Your task to perform on an android device: toggle priority inbox in the gmail app Image 0: 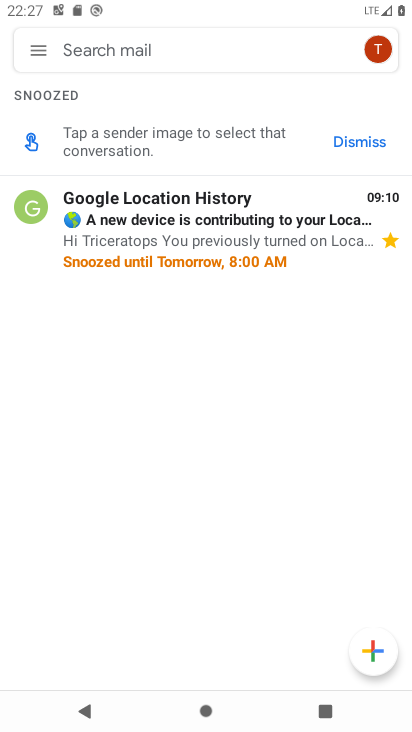
Step 0: press home button
Your task to perform on an android device: toggle priority inbox in the gmail app Image 1: 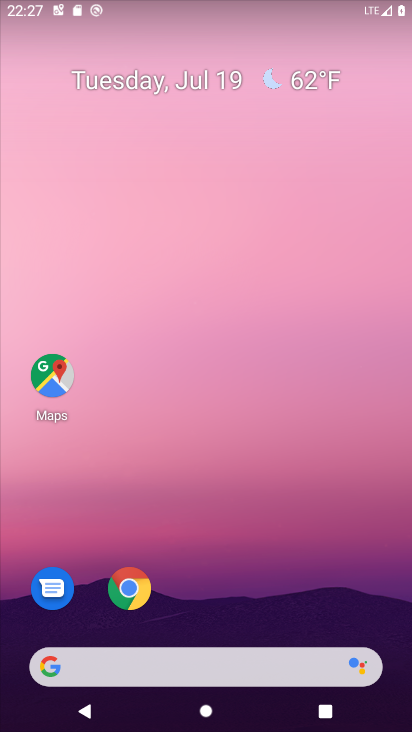
Step 1: drag from (188, 594) to (210, 255)
Your task to perform on an android device: toggle priority inbox in the gmail app Image 2: 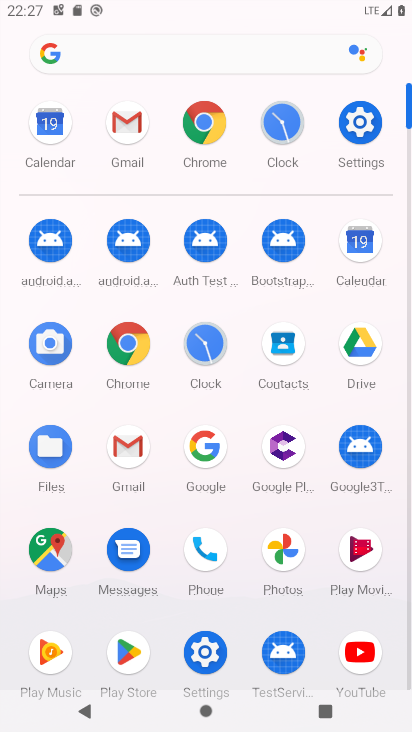
Step 2: click (124, 132)
Your task to perform on an android device: toggle priority inbox in the gmail app Image 3: 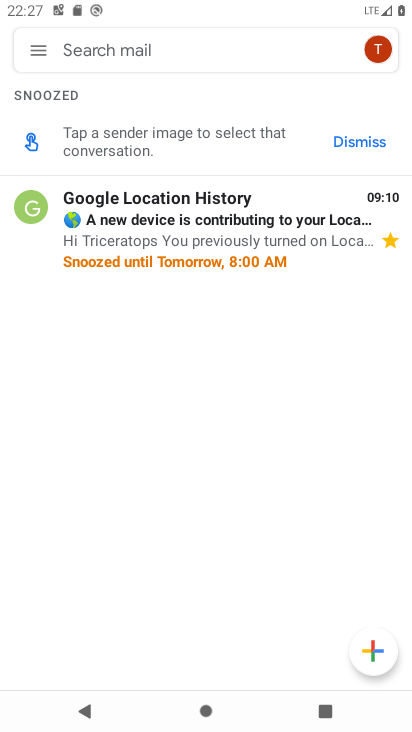
Step 3: click (28, 45)
Your task to perform on an android device: toggle priority inbox in the gmail app Image 4: 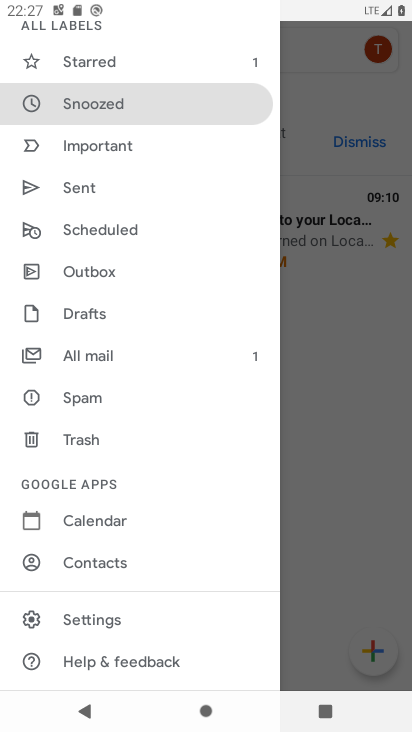
Step 4: click (89, 625)
Your task to perform on an android device: toggle priority inbox in the gmail app Image 5: 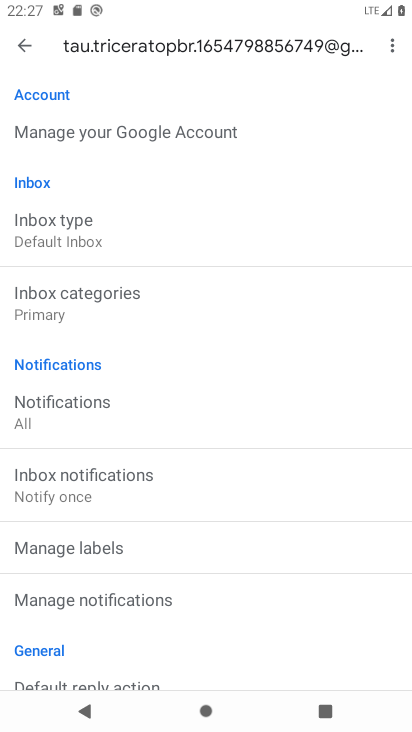
Step 5: click (49, 214)
Your task to perform on an android device: toggle priority inbox in the gmail app Image 6: 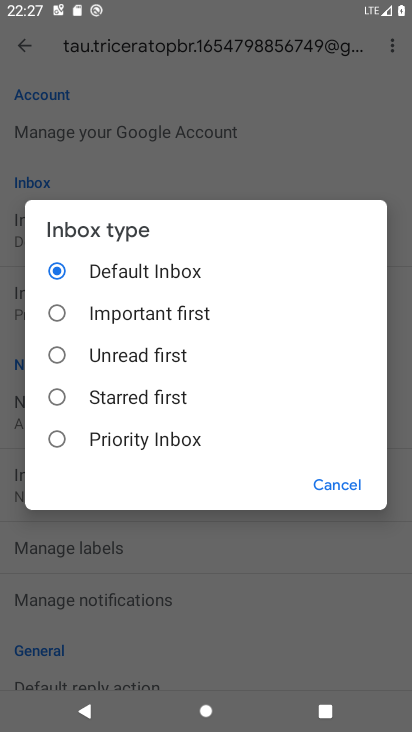
Step 6: click (52, 439)
Your task to perform on an android device: toggle priority inbox in the gmail app Image 7: 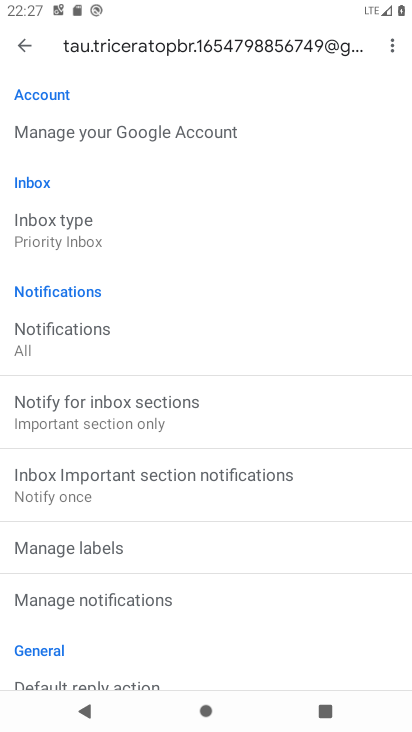
Step 7: task complete